Your task to perform on an android device: read, delete, or share a saved page in the chrome app Image 0: 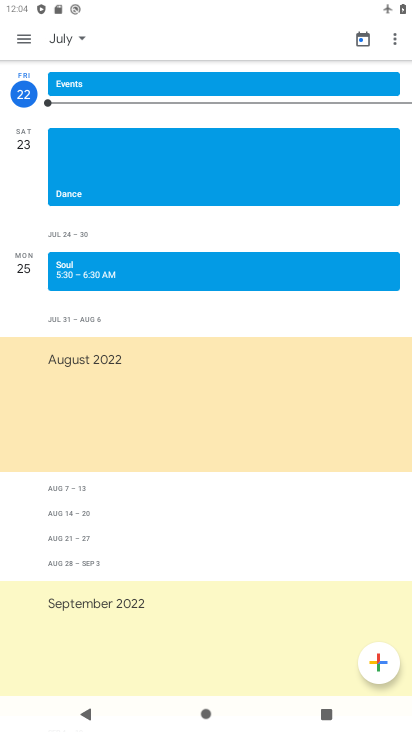
Step 0: press home button
Your task to perform on an android device: read, delete, or share a saved page in the chrome app Image 1: 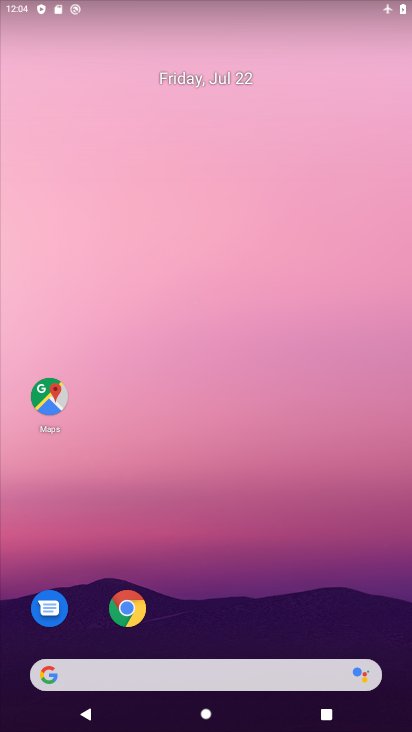
Step 1: click (136, 605)
Your task to perform on an android device: read, delete, or share a saved page in the chrome app Image 2: 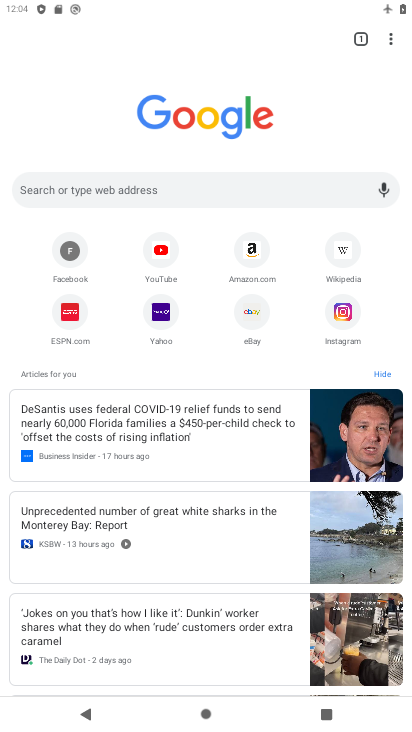
Step 2: click (401, 45)
Your task to perform on an android device: read, delete, or share a saved page in the chrome app Image 3: 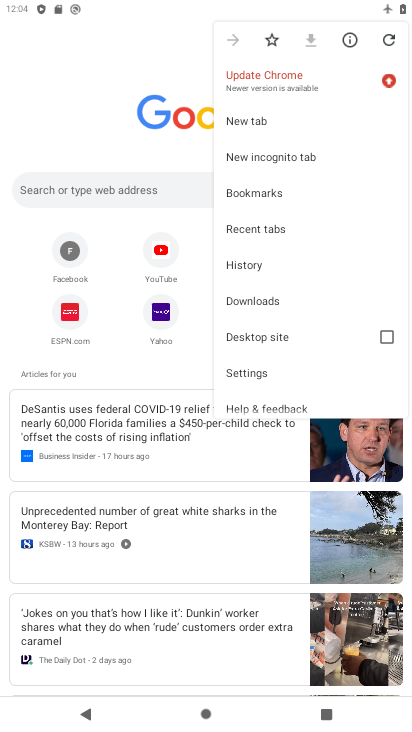
Step 3: click (248, 307)
Your task to perform on an android device: read, delete, or share a saved page in the chrome app Image 4: 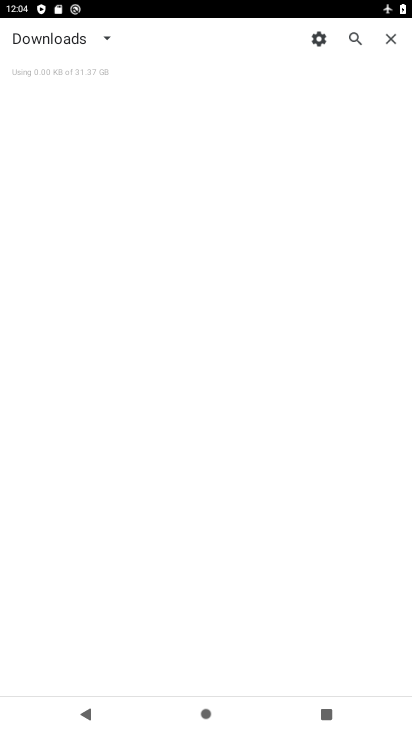
Step 4: task complete